Your task to perform on an android device: Search for Italian restaurants on Maps Image 0: 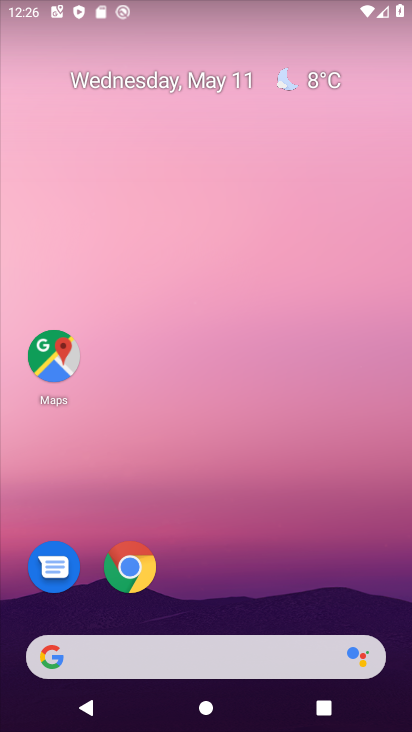
Step 0: click (44, 367)
Your task to perform on an android device: Search for Italian restaurants on Maps Image 1: 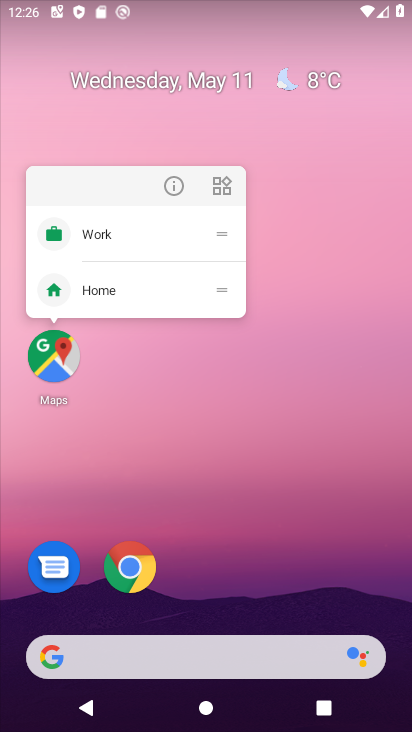
Step 1: click (44, 352)
Your task to perform on an android device: Search for Italian restaurants on Maps Image 2: 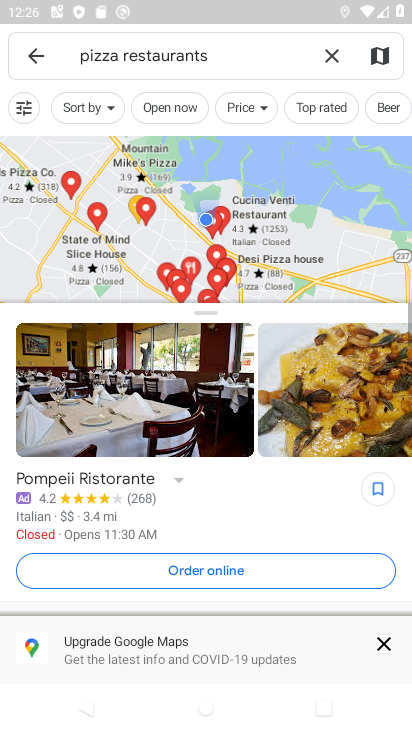
Step 2: click (320, 51)
Your task to perform on an android device: Search for Italian restaurants on Maps Image 3: 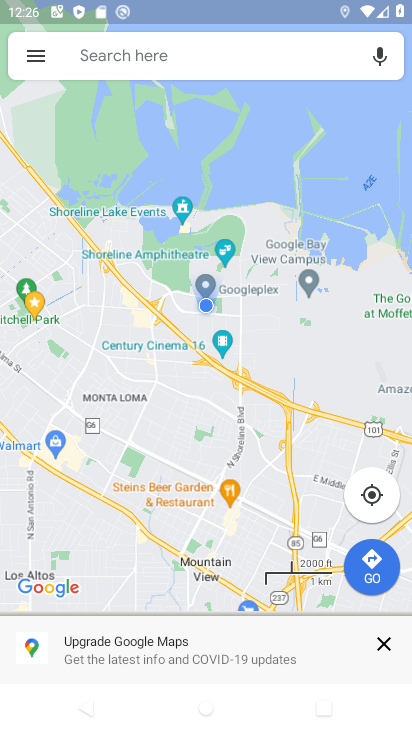
Step 3: click (249, 71)
Your task to perform on an android device: Search for Italian restaurants on Maps Image 4: 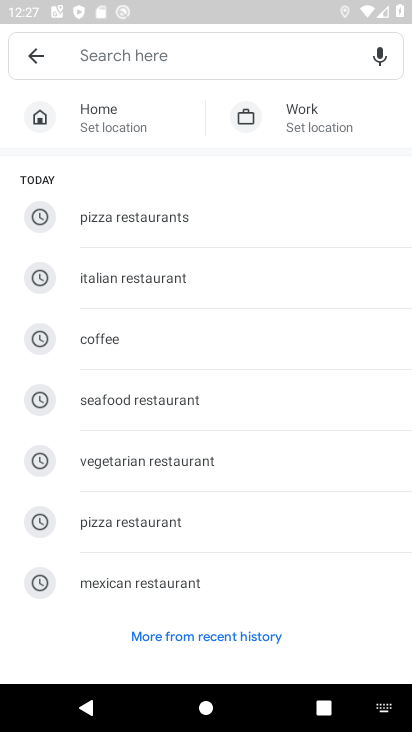
Step 4: type "Italian restaurants"
Your task to perform on an android device: Search for Italian restaurants on Maps Image 5: 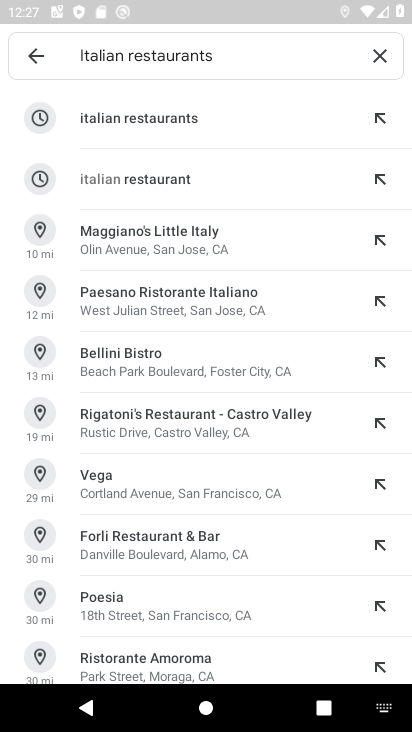
Step 5: click (140, 115)
Your task to perform on an android device: Search for Italian restaurants on Maps Image 6: 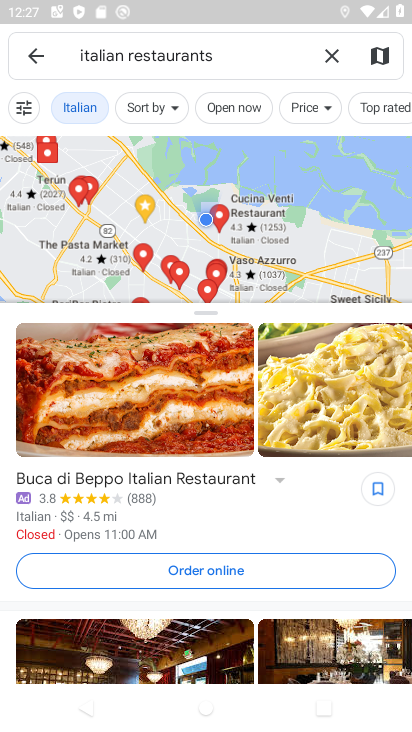
Step 6: task complete